Your task to perform on an android device: What is the recent news? Image 0: 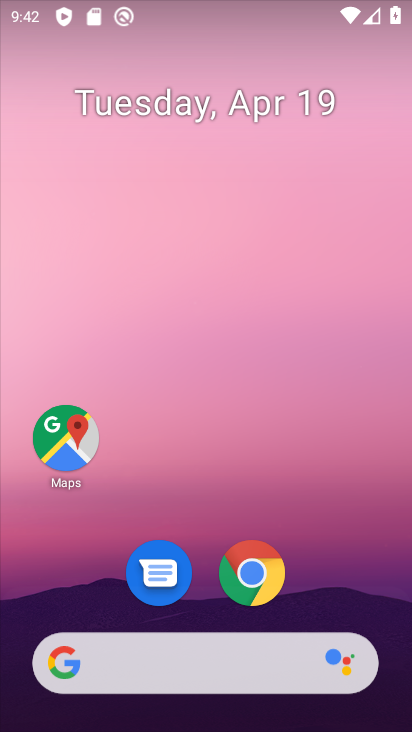
Step 0: drag from (116, 276) to (402, 288)
Your task to perform on an android device: What is the recent news? Image 1: 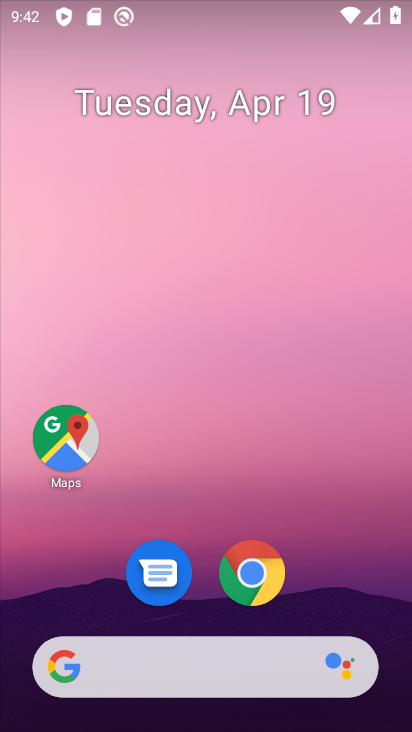
Step 1: task complete